Your task to perform on an android device: clear history in the chrome app Image 0: 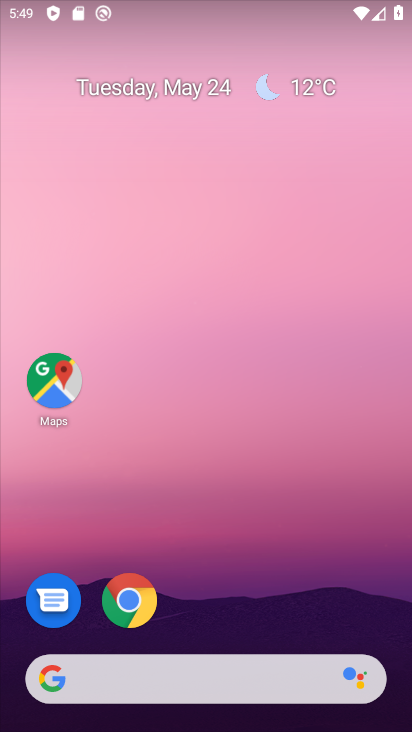
Step 0: drag from (299, 631) to (272, 15)
Your task to perform on an android device: clear history in the chrome app Image 1: 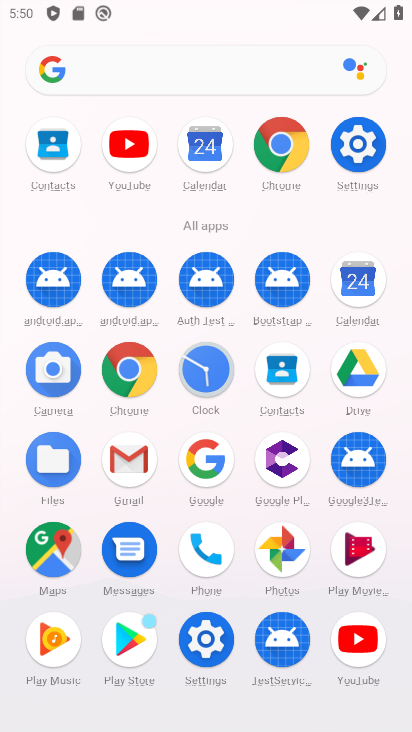
Step 1: click (133, 380)
Your task to perform on an android device: clear history in the chrome app Image 2: 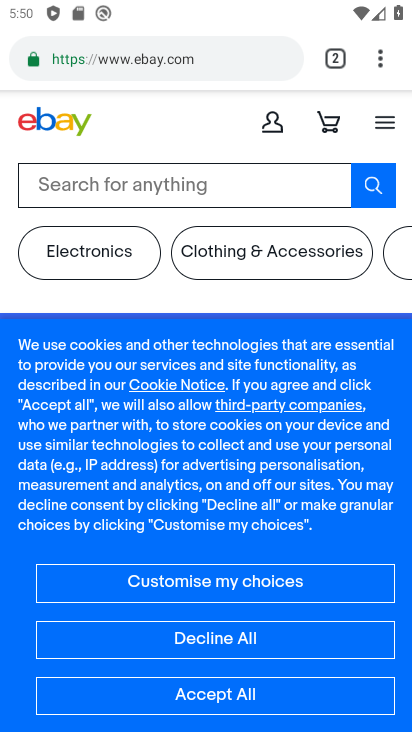
Step 2: drag from (383, 66) to (196, 333)
Your task to perform on an android device: clear history in the chrome app Image 3: 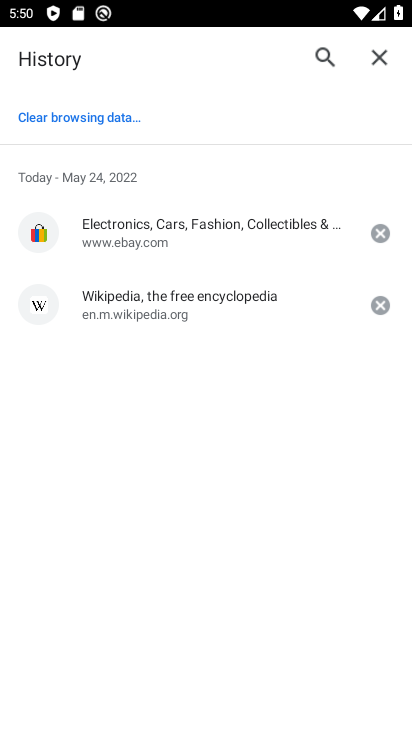
Step 3: click (112, 115)
Your task to perform on an android device: clear history in the chrome app Image 4: 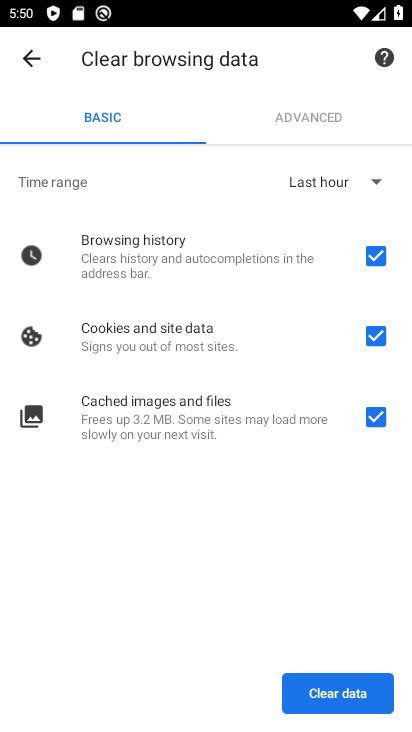
Step 4: click (331, 692)
Your task to perform on an android device: clear history in the chrome app Image 5: 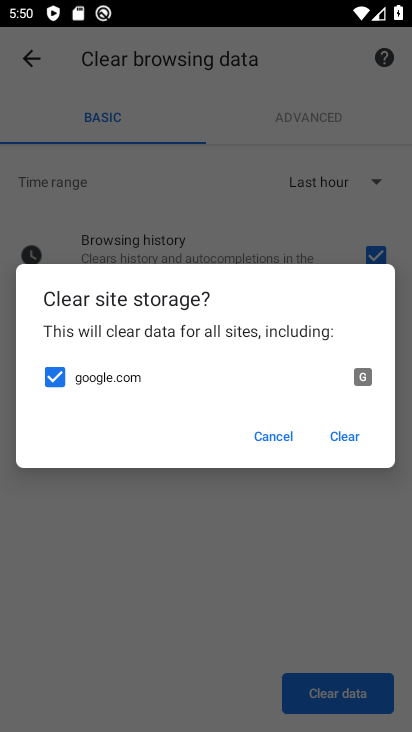
Step 5: click (346, 434)
Your task to perform on an android device: clear history in the chrome app Image 6: 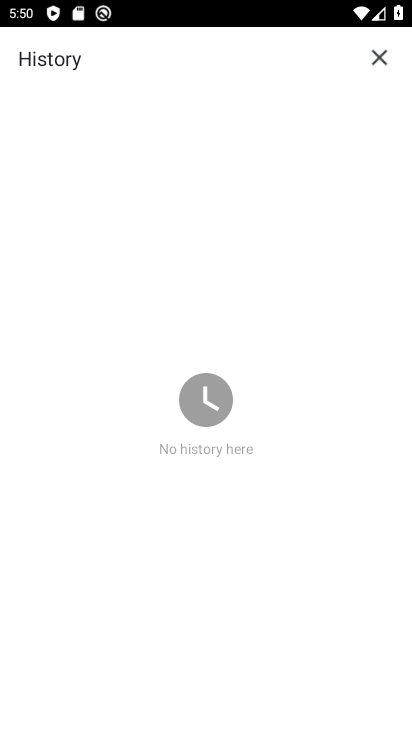
Step 6: task complete